Your task to perform on an android device: Open eBay Image 0: 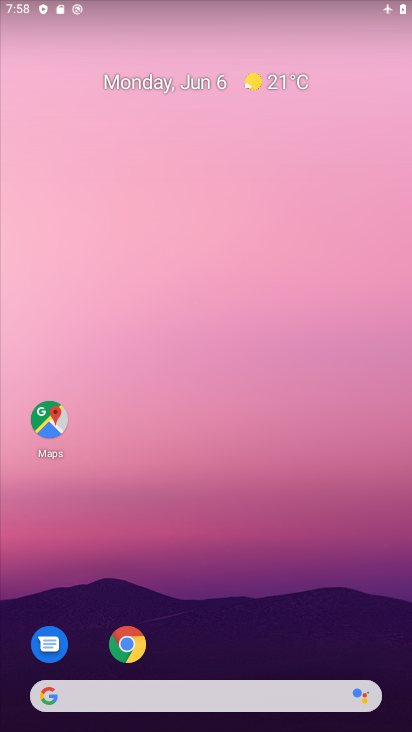
Step 0: drag from (204, 704) to (170, 80)
Your task to perform on an android device: Open eBay Image 1: 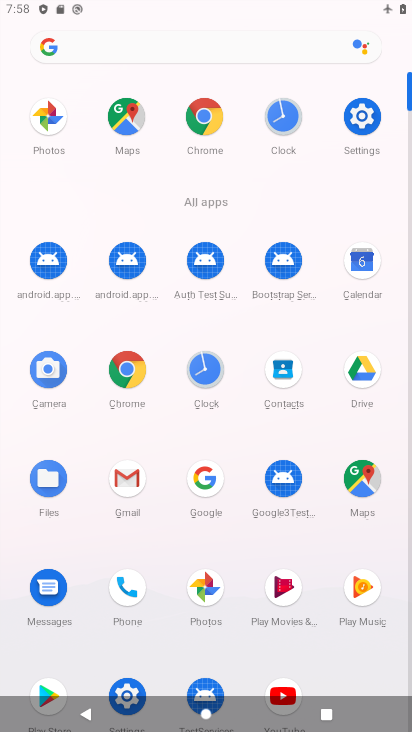
Step 1: click (192, 114)
Your task to perform on an android device: Open eBay Image 2: 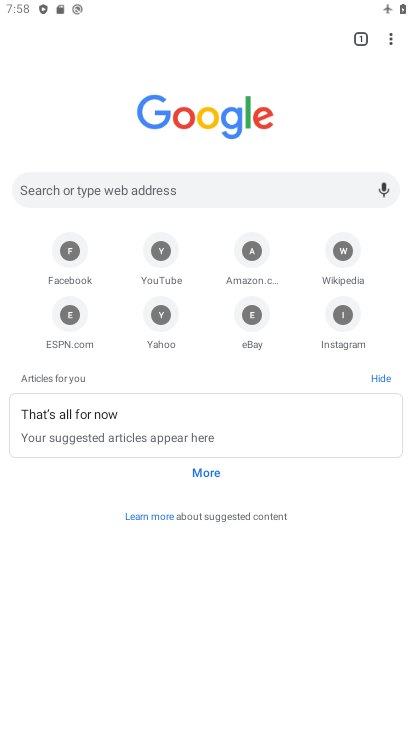
Step 2: click (253, 321)
Your task to perform on an android device: Open eBay Image 3: 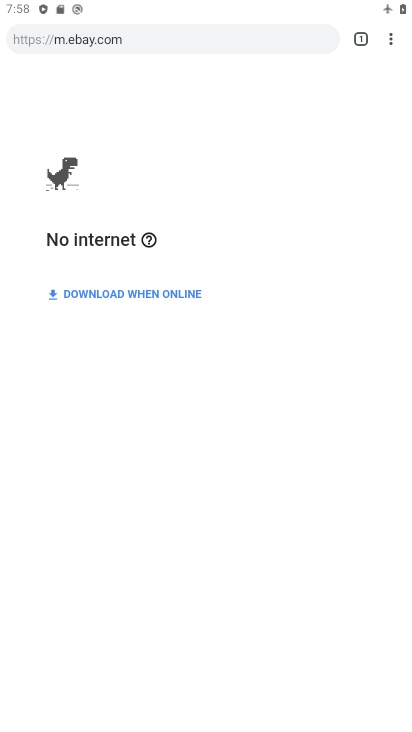
Step 3: task complete